Your task to perform on an android device: turn on translation in the chrome app Image 0: 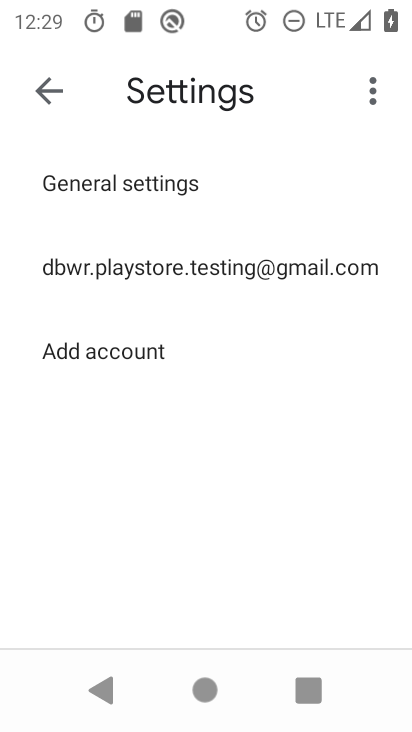
Step 0: press home button
Your task to perform on an android device: turn on translation in the chrome app Image 1: 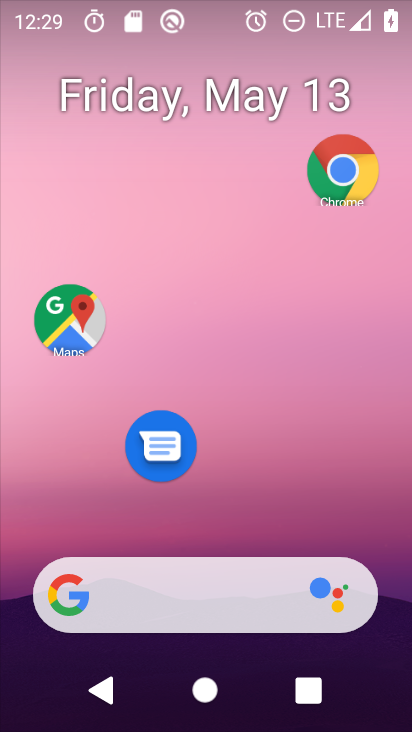
Step 1: drag from (289, 625) to (256, 127)
Your task to perform on an android device: turn on translation in the chrome app Image 2: 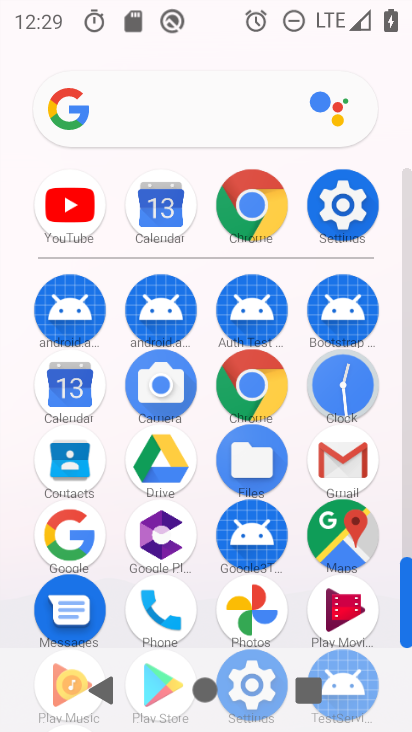
Step 2: click (267, 401)
Your task to perform on an android device: turn on translation in the chrome app Image 3: 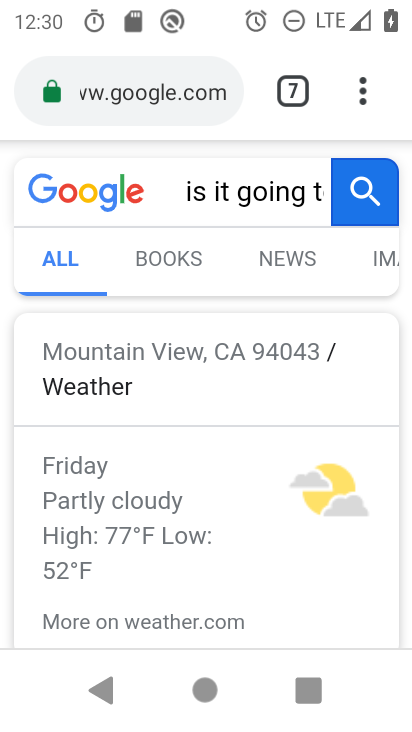
Step 3: drag from (358, 77) to (101, 478)
Your task to perform on an android device: turn on translation in the chrome app Image 4: 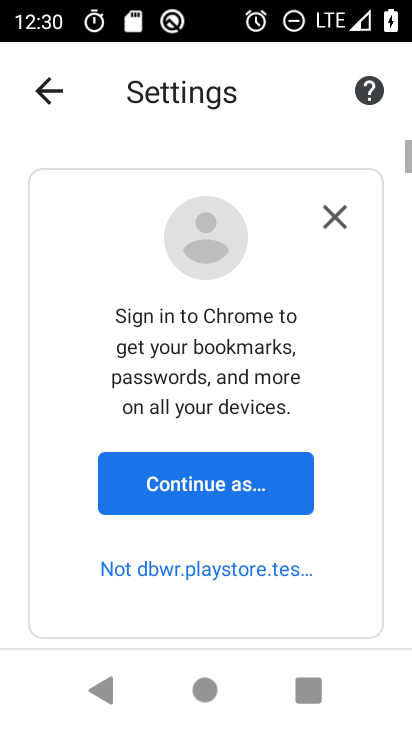
Step 4: drag from (261, 634) to (285, 47)
Your task to perform on an android device: turn on translation in the chrome app Image 5: 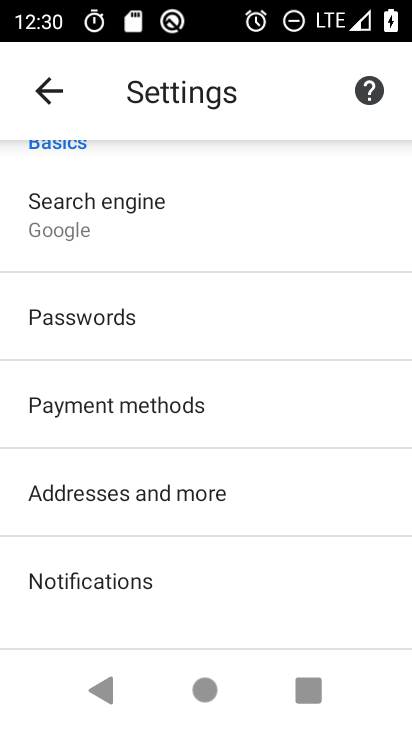
Step 5: drag from (287, 590) to (314, 44)
Your task to perform on an android device: turn on translation in the chrome app Image 6: 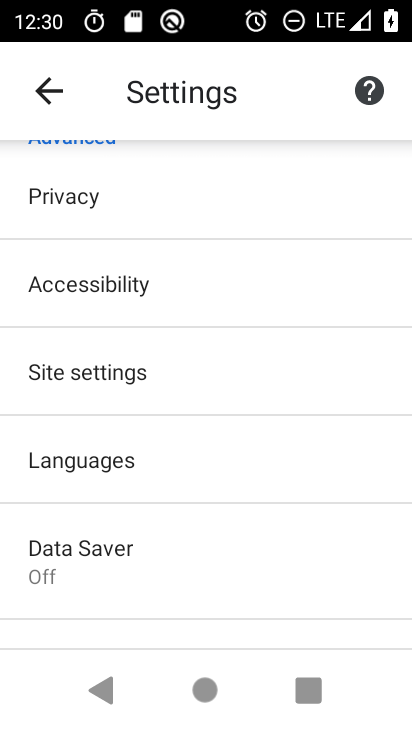
Step 6: click (113, 457)
Your task to perform on an android device: turn on translation in the chrome app Image 7: 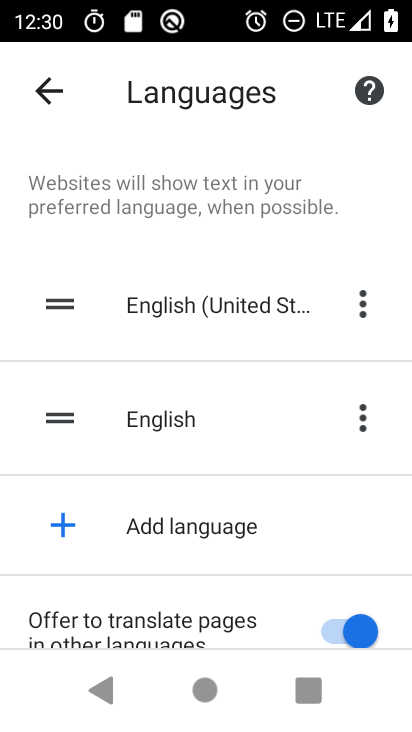
Step 7: task complete